Your task to perform on an android device: Go to location settings Image 0: 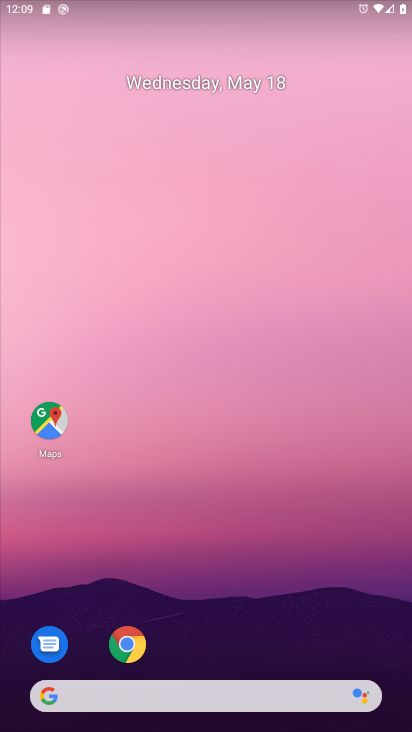
Step 0: drag from (223, 659) to (235, 154)
Your task to perform on an android device: Go to location settings Image 1: 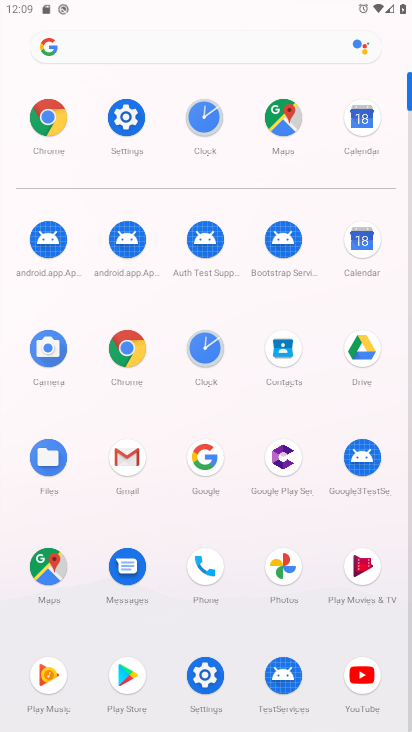
Step 1: click (118, 124)
Your task to perform on an android device: Go to location settings Image 2: 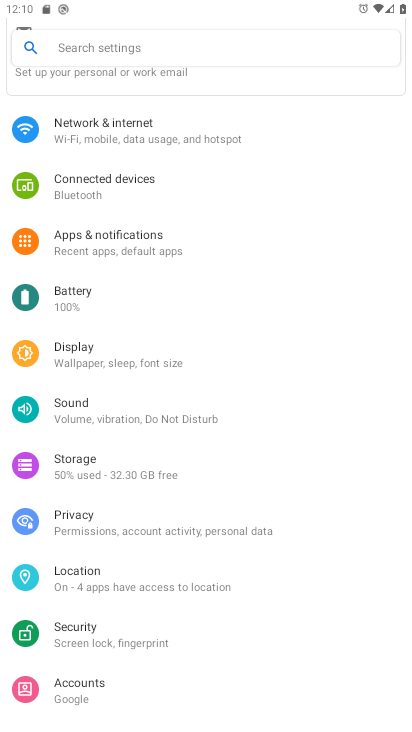
Step 2: click (115, 577)
Your task to perform on an android device: Go to location settings Image 3: 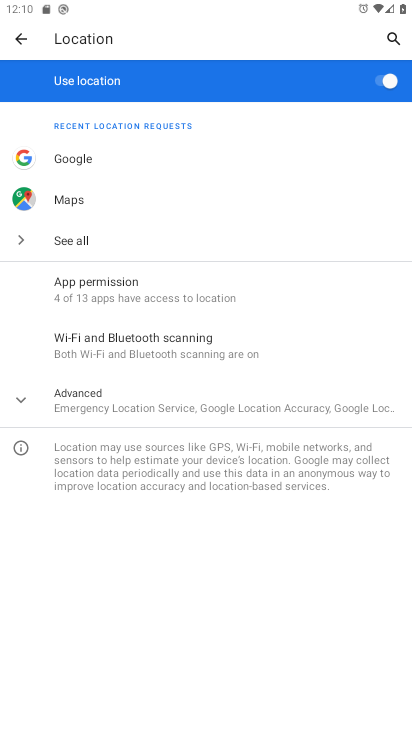
Step 3: click (61, 399)
Your task to perform on an android device: Go to location settings Image 4: 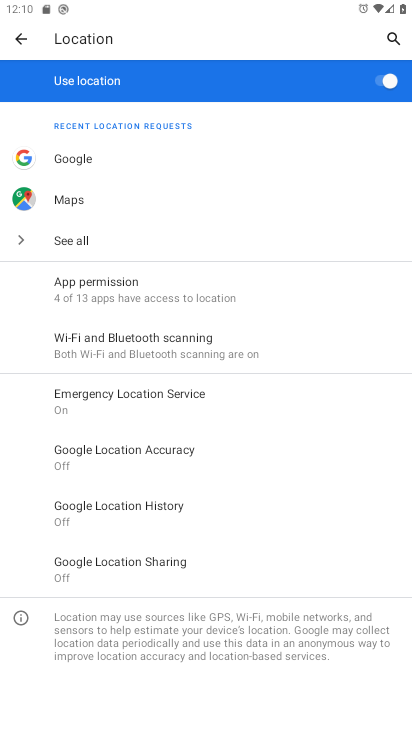
Step 4: task complete